Your task to perform on an android device: Open Chrome and go to settings Image 0: 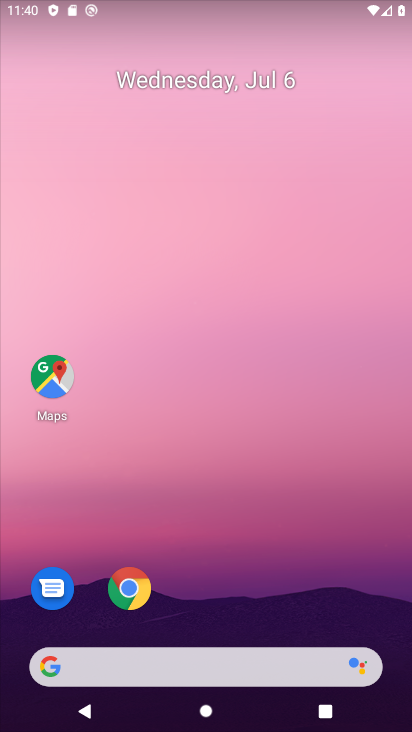
Step 0: drag from (176, 659) to (234, 179)
Your task to perform on an android device: Open Chrome and go to settings Image 1: 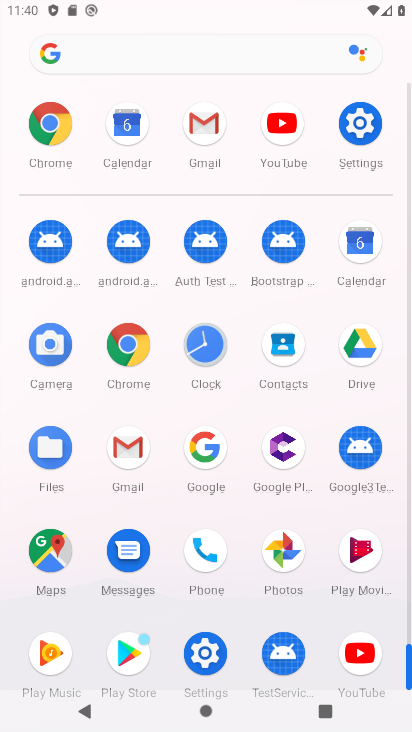
Step 1: click (124, 336)
Your task to perform on an android device: Open Chrome and go to settings Image 2: 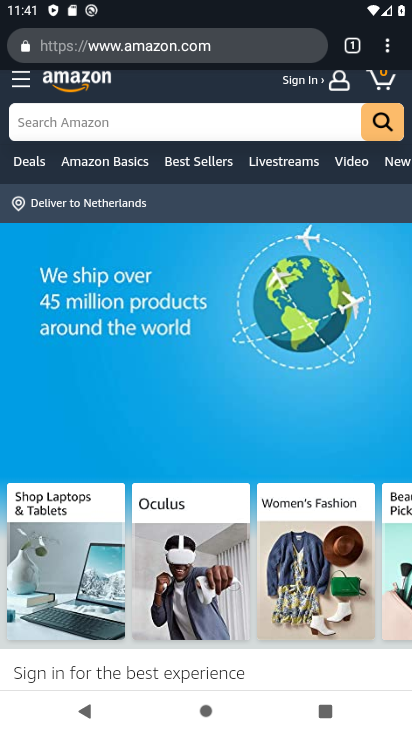
Step 2: click (389, 45)
Your task to perform on an android device: Open Chrome and go to settings Image 3: 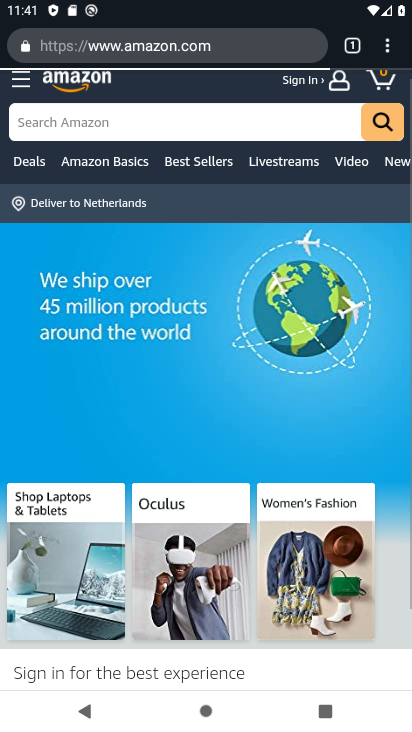
Step 3: task complete